Your task to perform on an android device: check google app version Image 0: 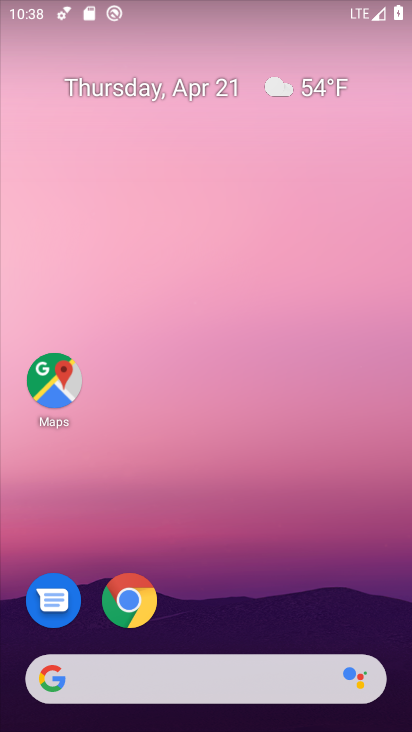
Step 0: drag from (222, 584) to (201, 56)
Your task to perform on an android device: check google app version Image 1: 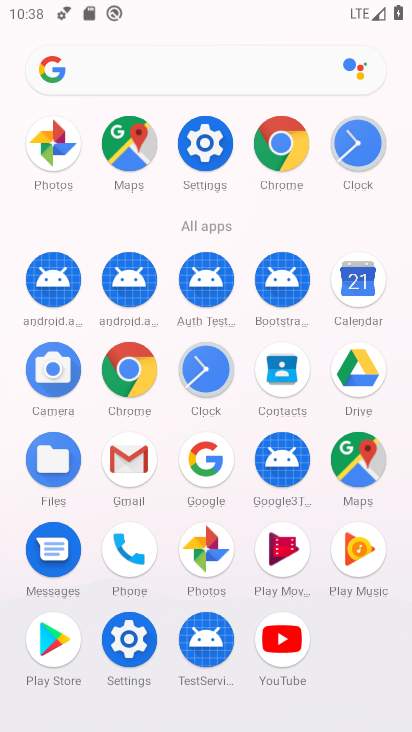
Step 1: click (205, 456)
Your task to perform on an android device: check google app version Image 2: 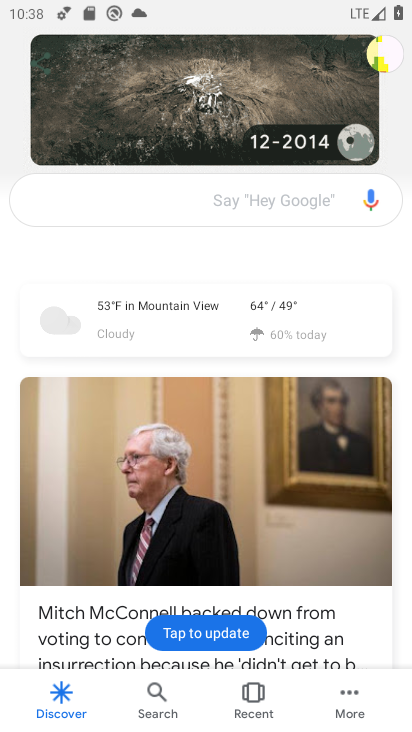
Step 2: click (343, 694)
Your task to perform on an android device: check google app version Image 3: 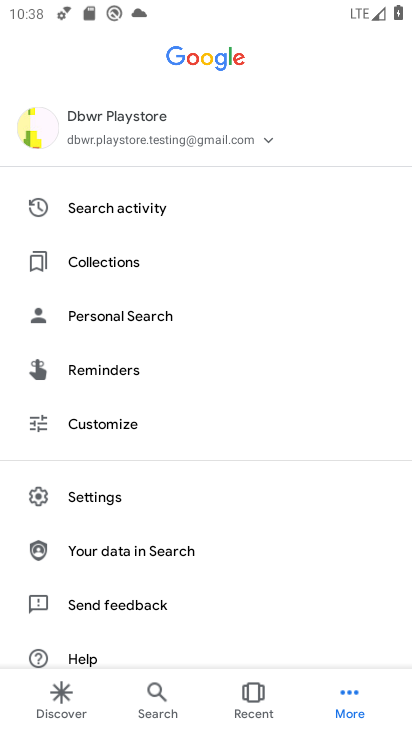
Step 3: click (142, 493)
Your task to perform on an android device: check google app version Image 4: 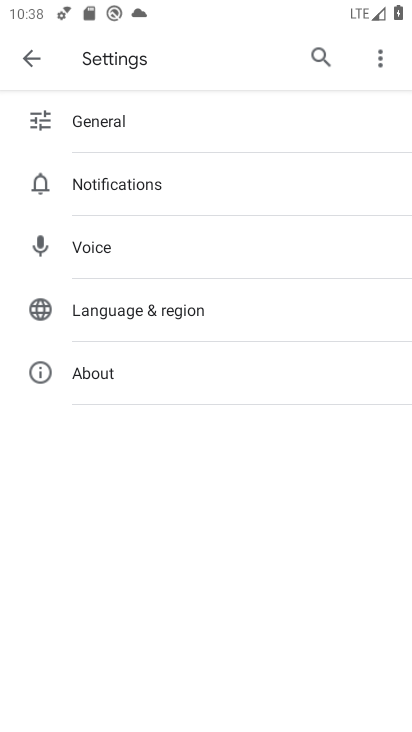
Step 4: click (102, 372)
Your task to perform on an android device: check google app version Image 5: 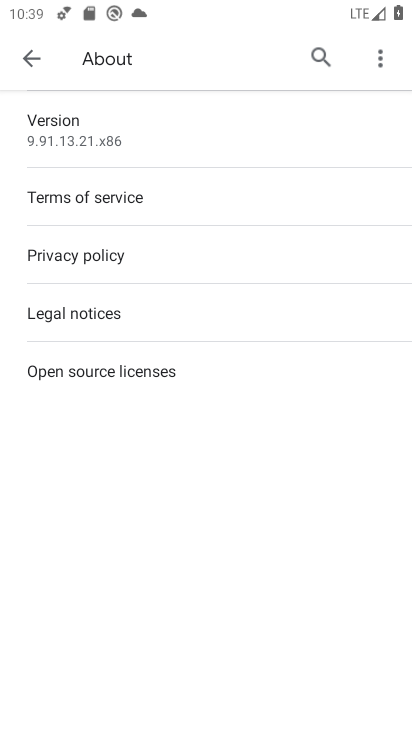
Step 5: task complete